Your task to perform on an android device: change text size in settings app Image 0: 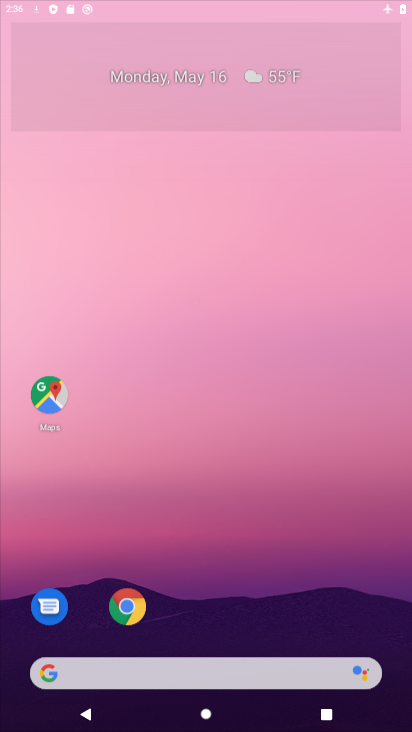
Step 0: click (189, 213)
Your task to perform on an android device: change text size in settings app Image 1: 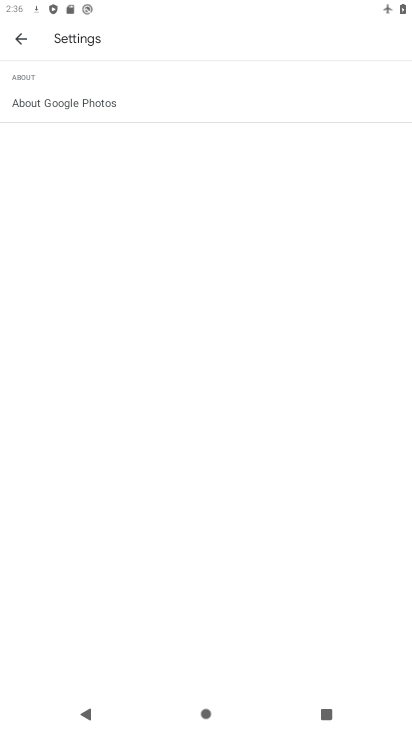
Step 1: press home button
Your task to perform on an android device: change text size in settings app Image 2: 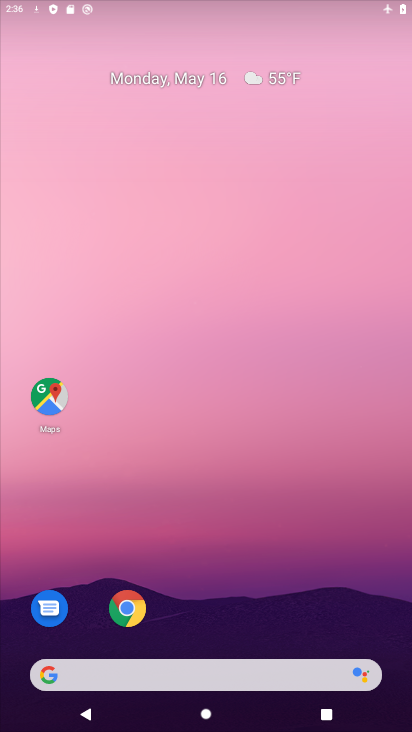
Step 2: drag from (260, 620) to (231, 193)
Your task to perform on an android device: change text size in settings app Image 3: 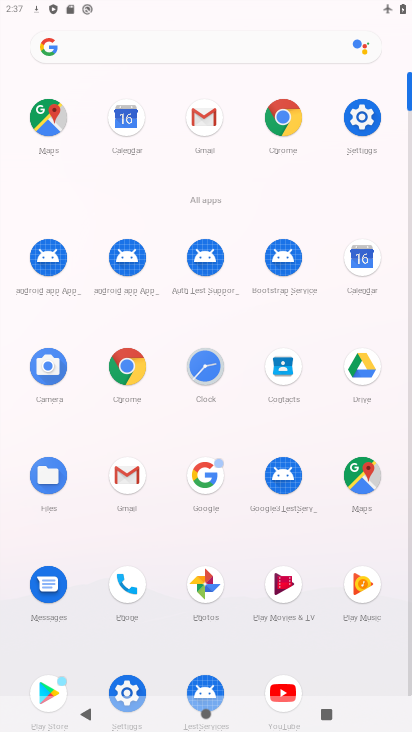
Step 3: click (373, 124)
Your task to perform on an android device: change text size in settings app Image 4: 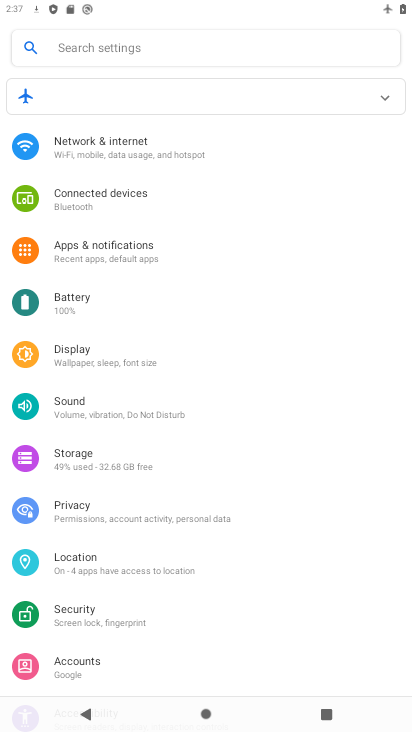
Step 4: click (152, 358)
Your task to perform on an android device: change text size in settings app Image 5: 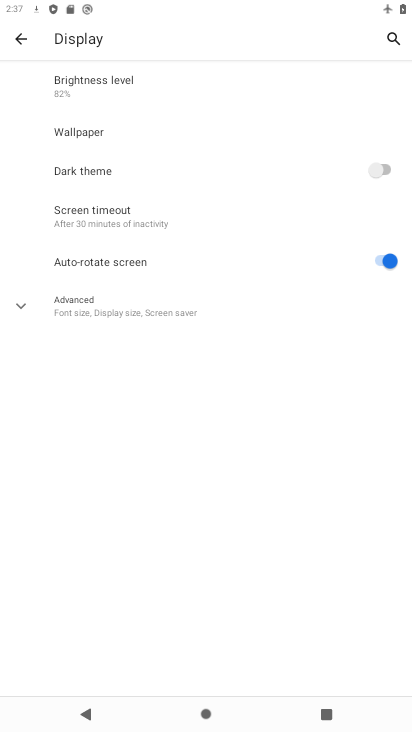
Step 5: click (133, 312)
Your task to perform on an android device: change text size in settings app Image 6: 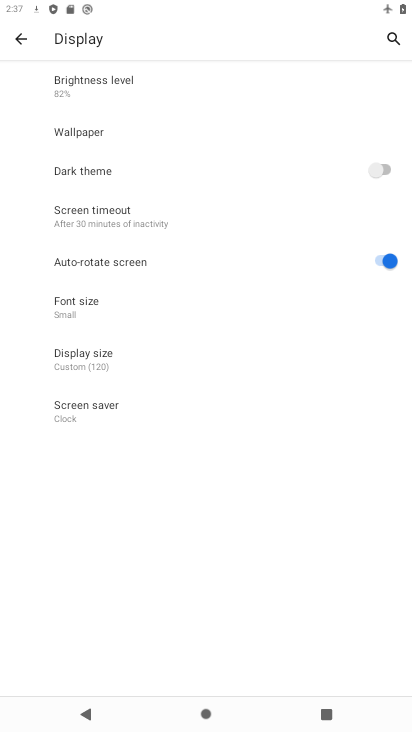
Step 6: click (125, 356)
Your task to perform on an android device: change text size in settings app Image 7: 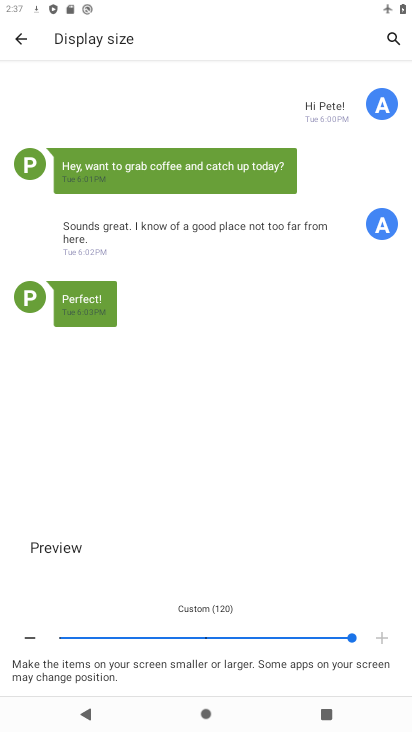
Step 7: click (17, 41)
Your task to perform on an android device: change text size in settings app Image 8: 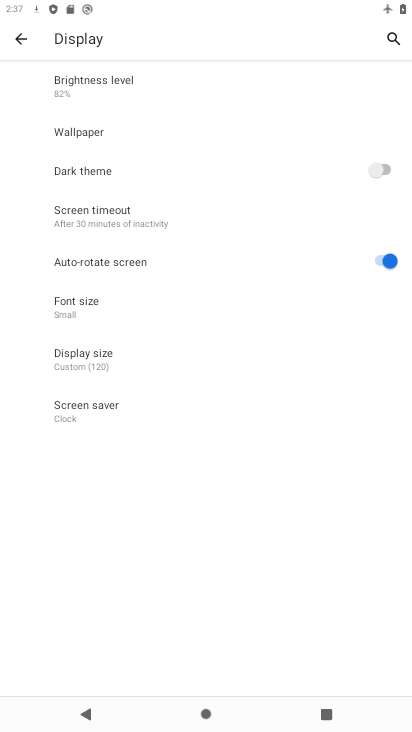
Step 8: click (87, 315)
Your task to perform on an android device: change text size in settings app Image 9: 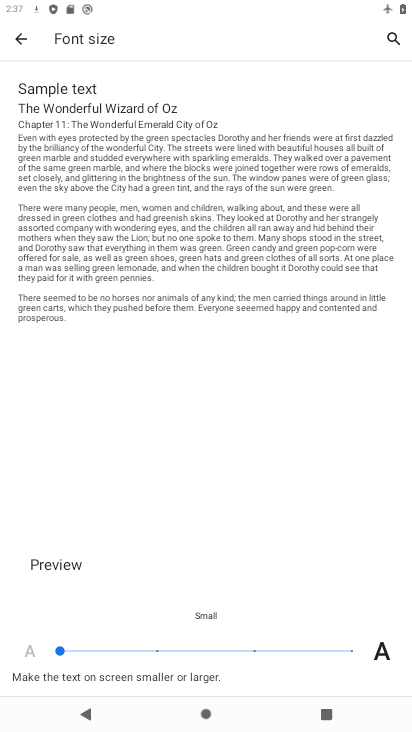
Step 9: click (171, 650)
Your task to perform on an android device: change text size in settings app Image 10: 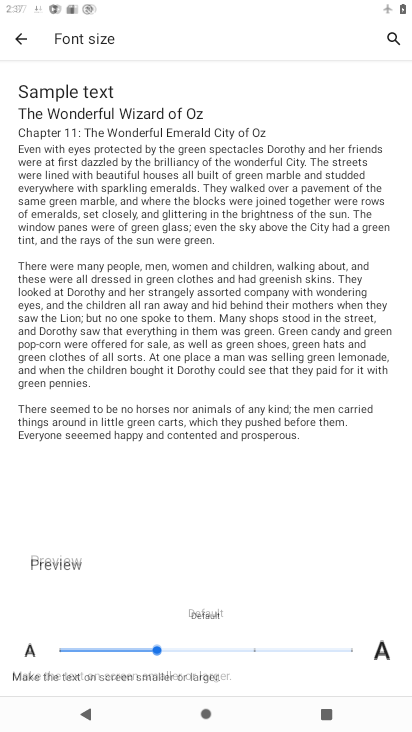
Step 10: task complete